Your task to perform on an android device: change alarm snooze length Image 0: 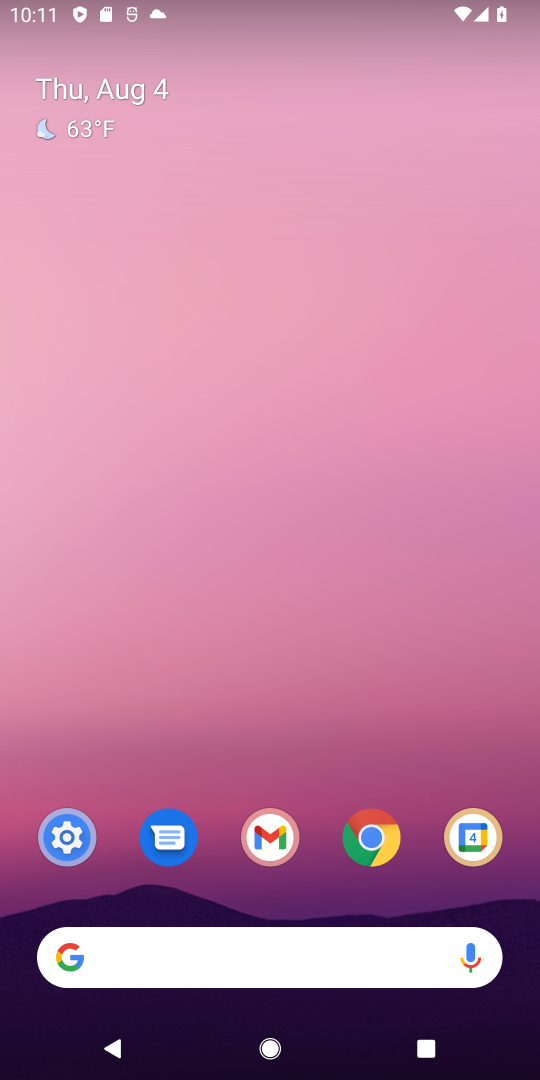
Step 0: press home button
Your task to perform on an android device: change alarm snooze length Image 1: 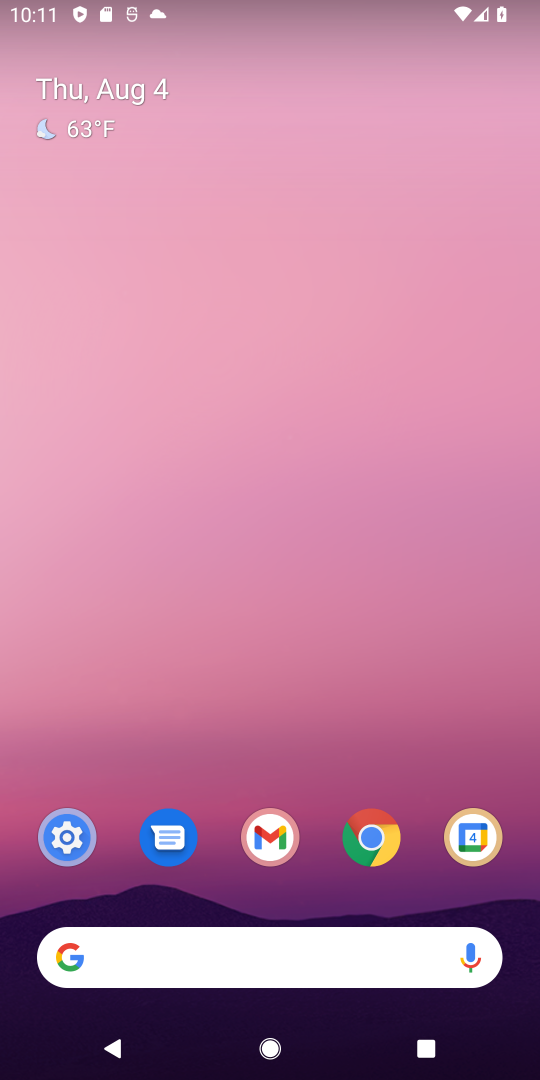
Step 1: drag from (325, 803) to (371, 14)
Your task to perform on an android device: change alarm snooze length Image 2: 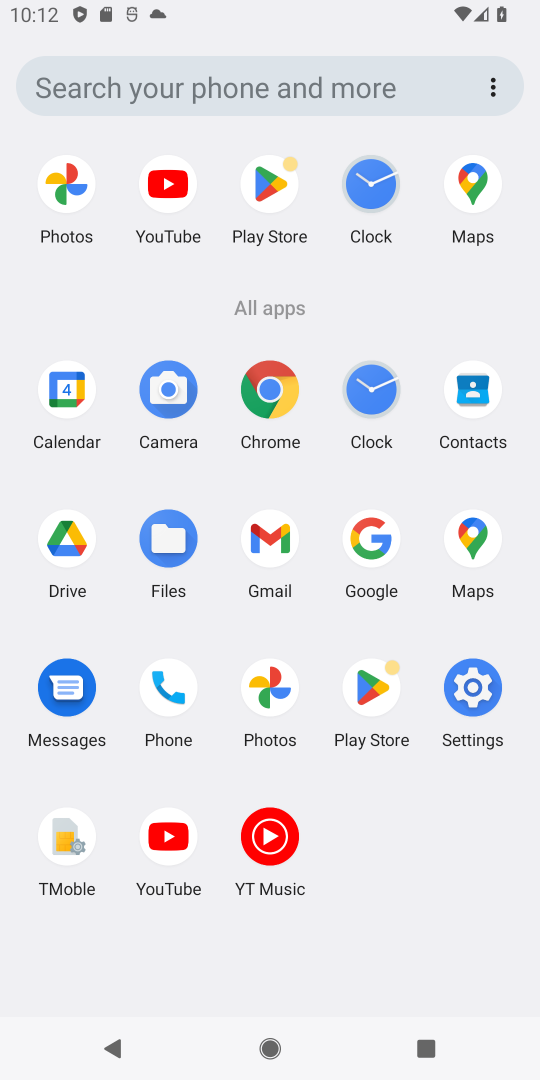
Step 2: click (369, 386)
Your task to perform on an android device: change alarm snooze length Image 3: 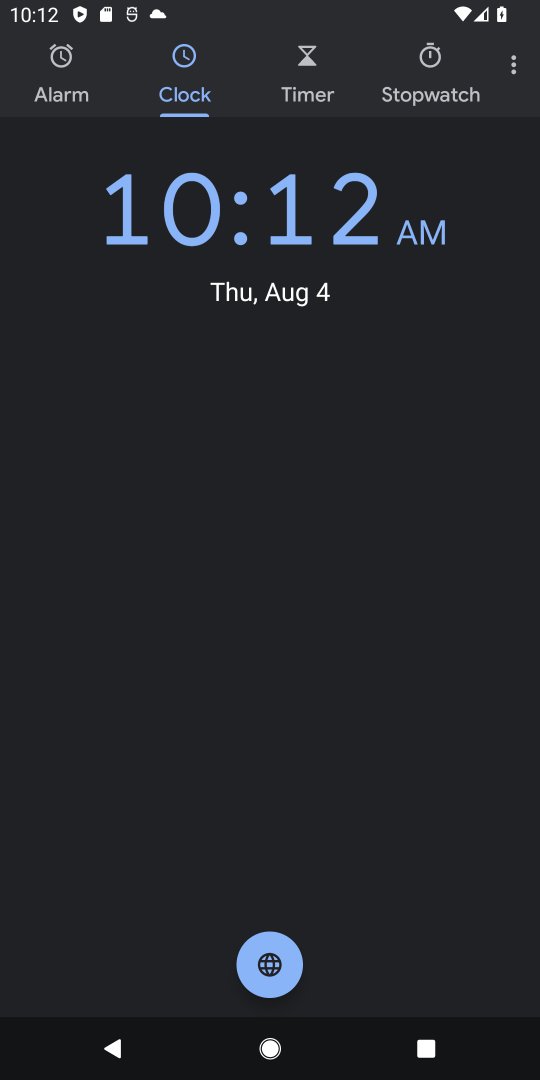
Step 3: click (507, 71)
Your task to perform on an android device: change alarm snooze length Image 4: 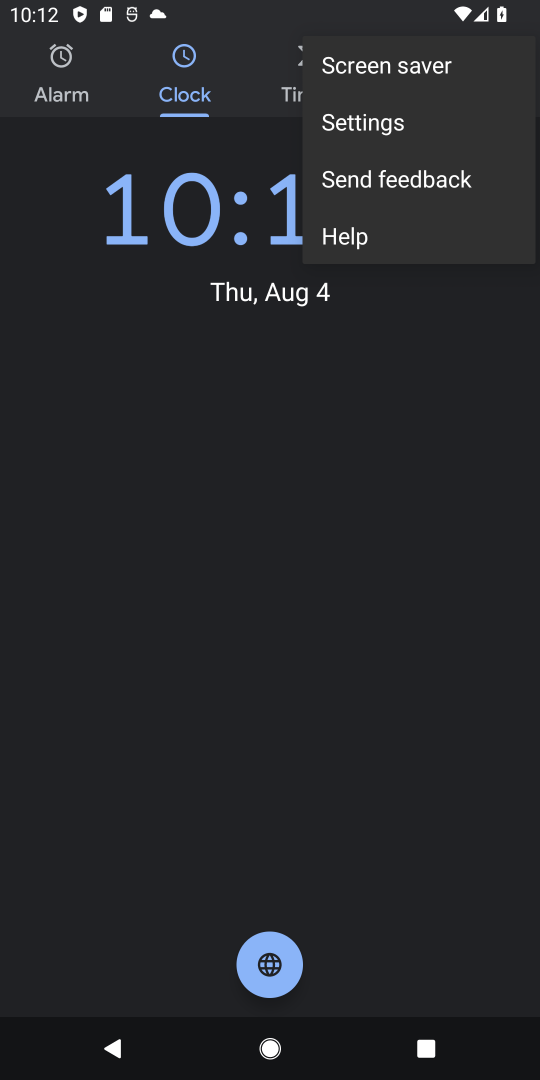
Step 4: click (401, 133)
Your task to perform on an android device: change alarm snooze length Image 5: 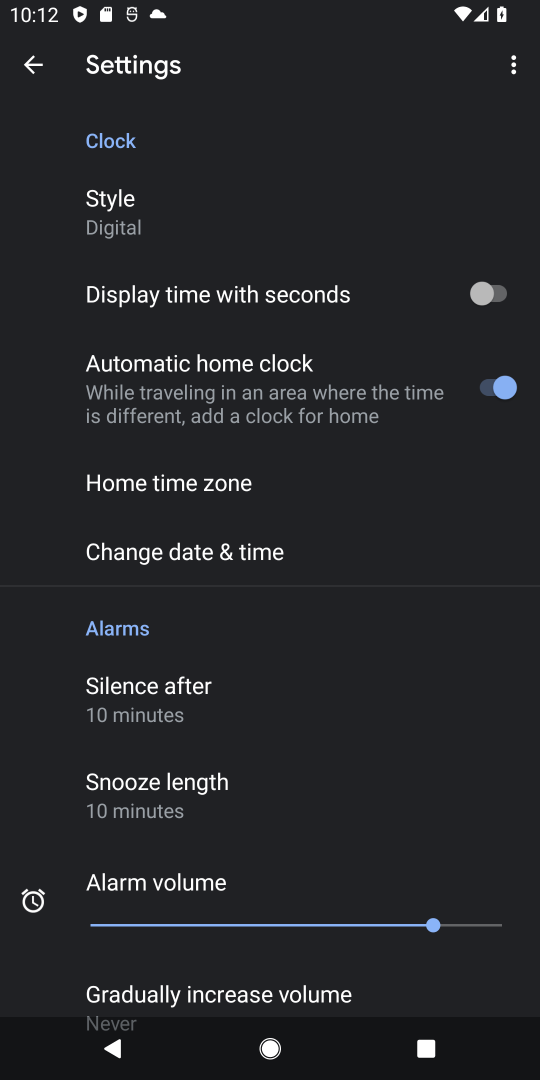
Step 5: click (231, 790)
Your task to perform on an android device: change alarm snooze length Image 6: 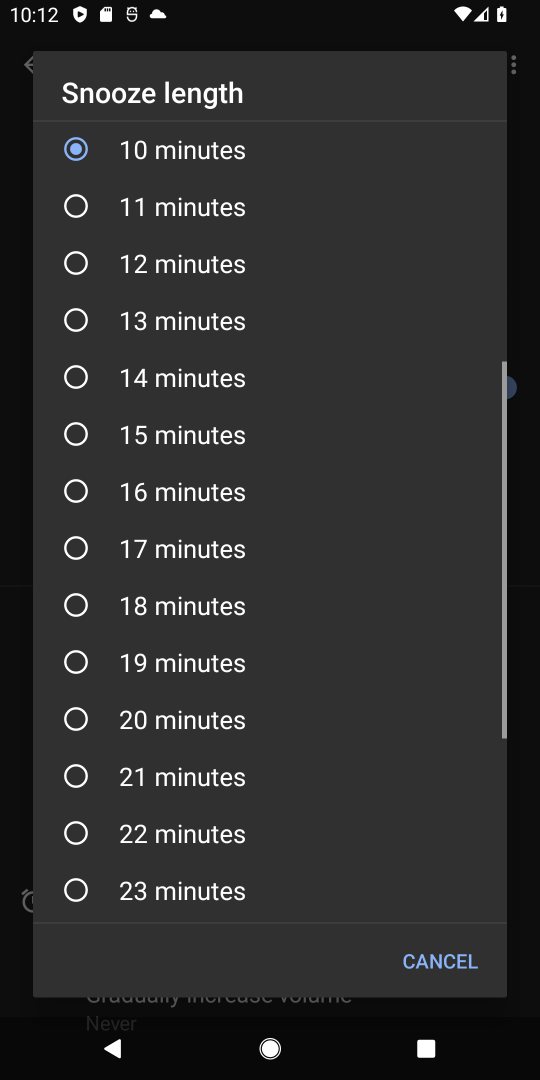
Step 6: drag from (82, 189) to (139, 645)
Your task to perform on an android device: change alarm snooze length Image 7: 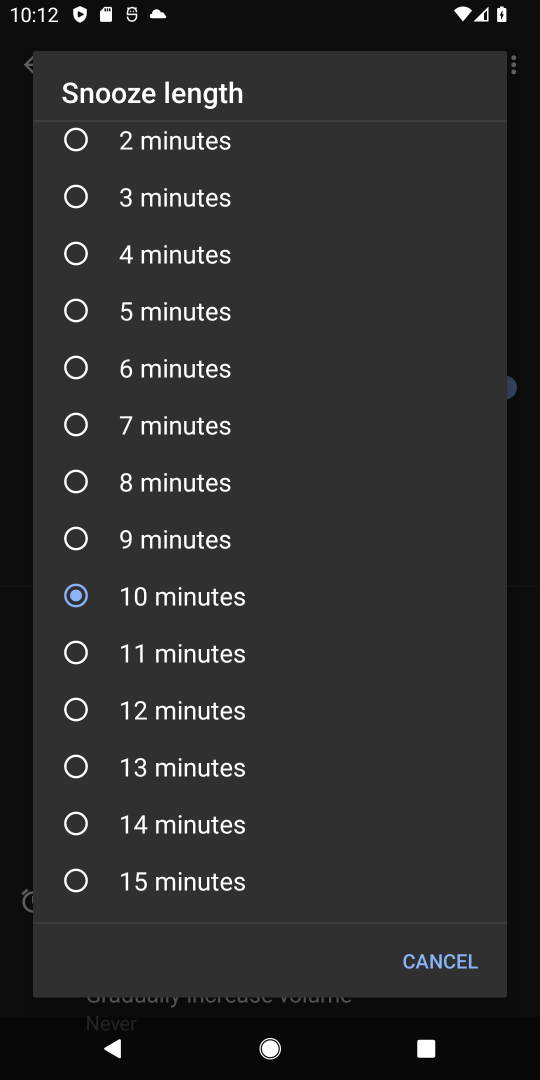
Step 7: click (89, 319)
Your task to perform on an android device: change alarm snooze length Image 8: 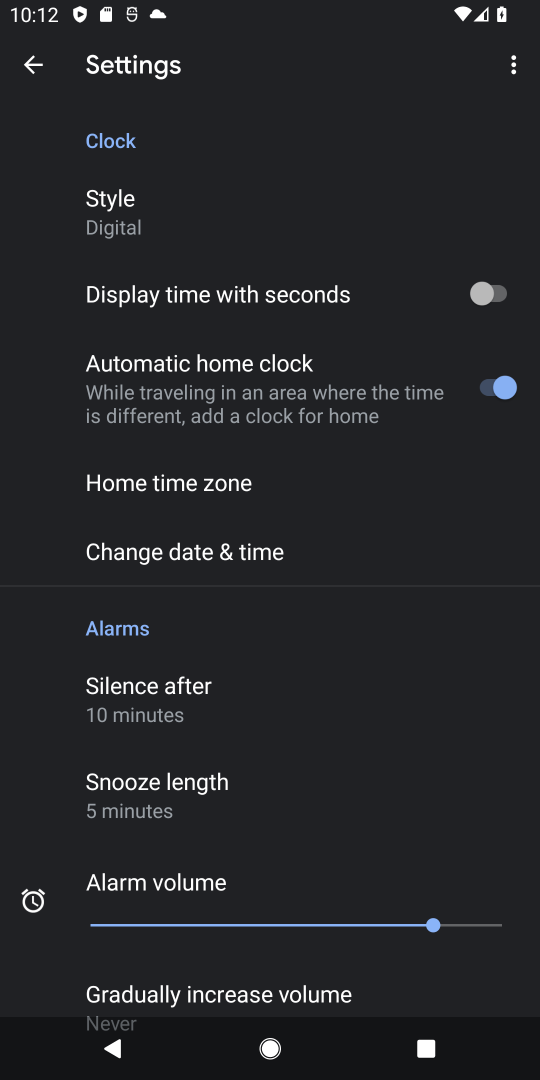
Step 8: task complete